Your task to perform on an android device: Open Google Chrome Image 0: 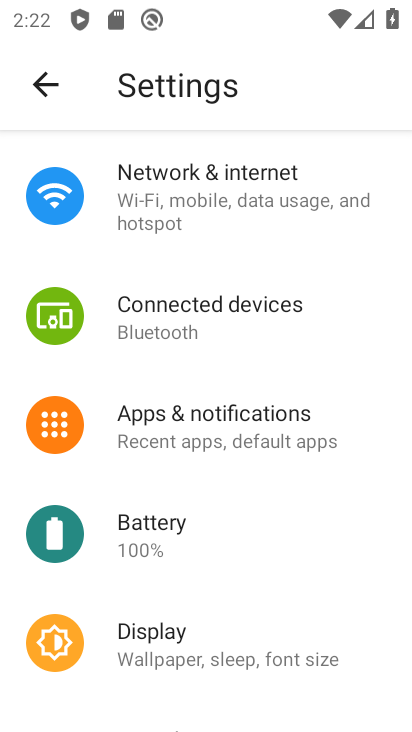
Step 0: press home button
Your task to perform on an android device: Open Google Chrome Image 1: 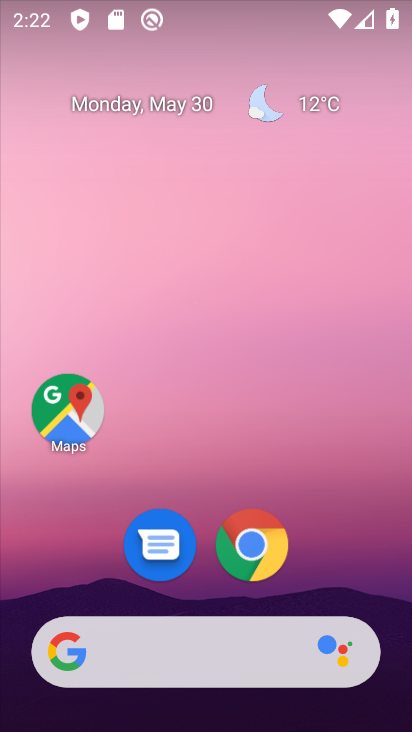
Step 1: click (245, 551)
Your task to perform on an android device: Open Google Chrome Image 2: 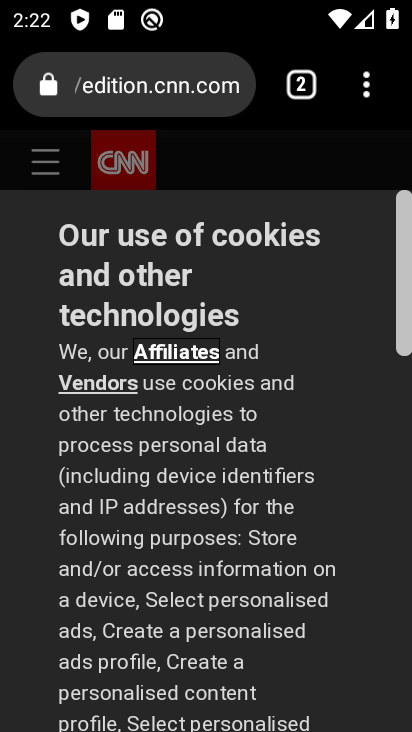
Step 2: task complete